Your task to perform on an android device: Go to Amazon Image 0: 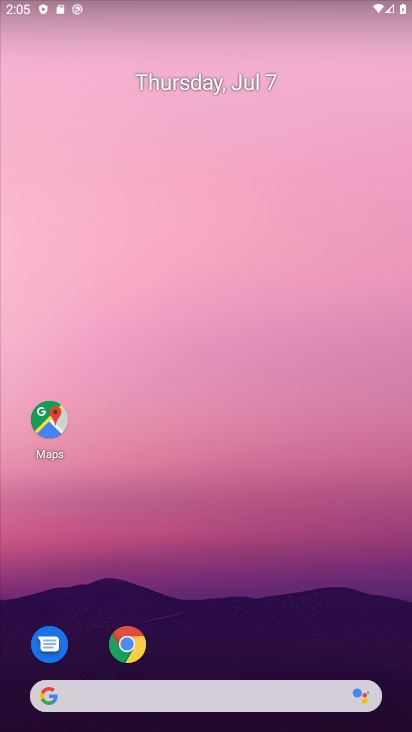
Step 0: click (127, 643)
Your task to perform on an android device: Go to Amazon Image 1: 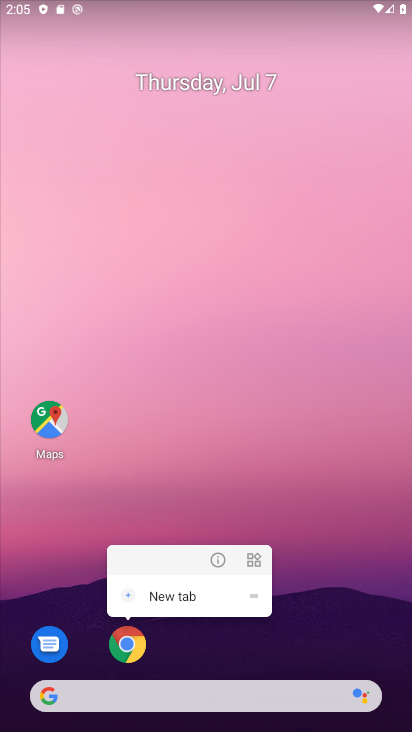
Step 1: click (127, 662)
Your task to perform on an android device: Go to Amazon Image 2: 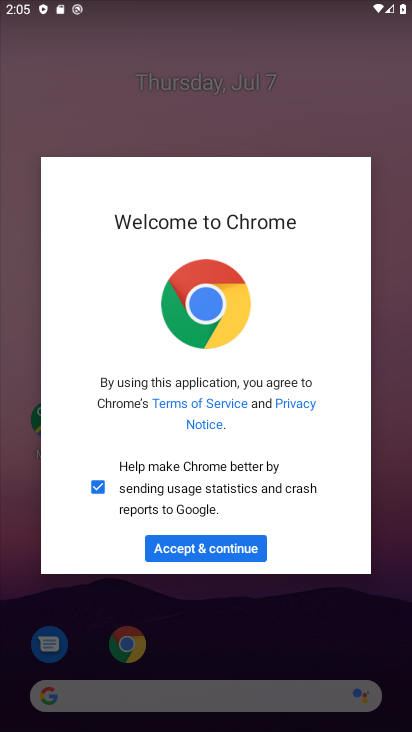
Step 2: click (239, 547)
Your task to perform on an android device: Go to Amazon Image 3: 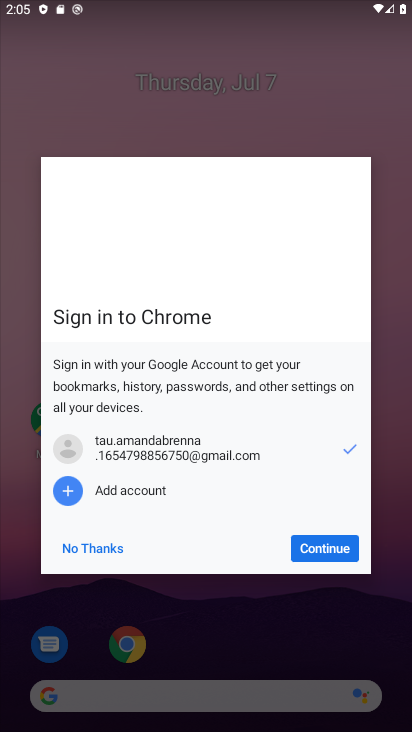
Step 3: click (306, 548)
Your task to perform on an android device: Go to Amazon Image 4: 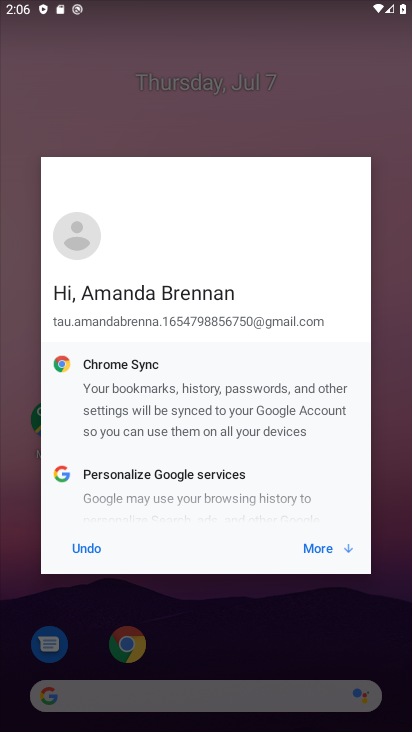
Step 4: click (329, 548)
Your task to perform on an android device: Go to Amazon Image 5: 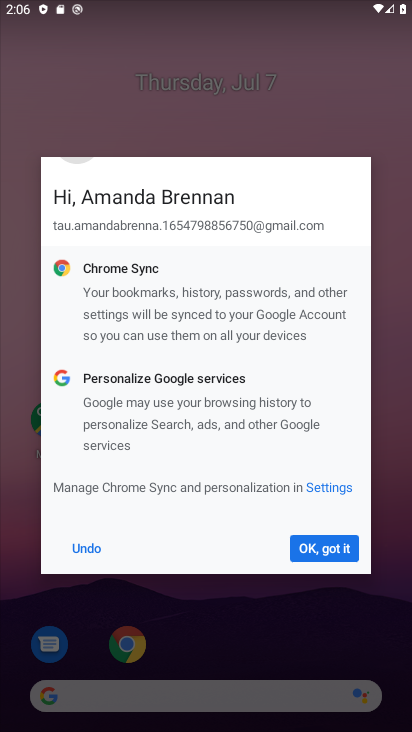
Step 5: click (341, 551)
Your task to perform on an android device: Go to Amazon Image 6: 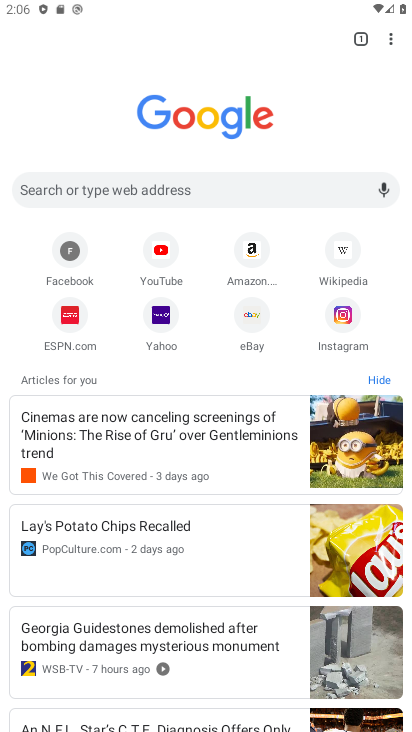
Step 6: click (257, 244)
Your task to perform on an android device: Go to Amazon Image 7: 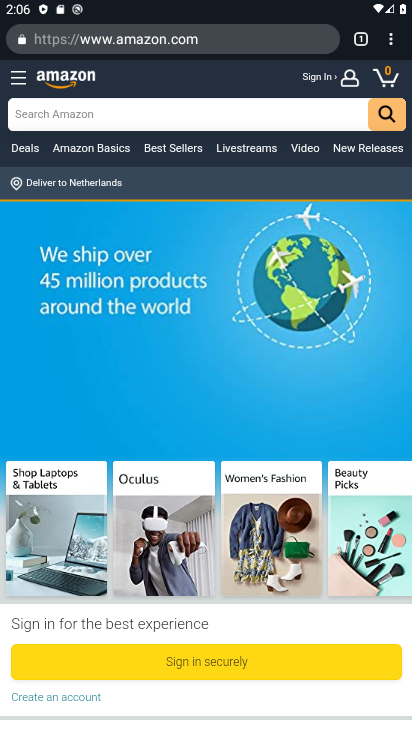
Step 7: task complete